Your task to perform on an android device: Go to accessibility settings Image 0: 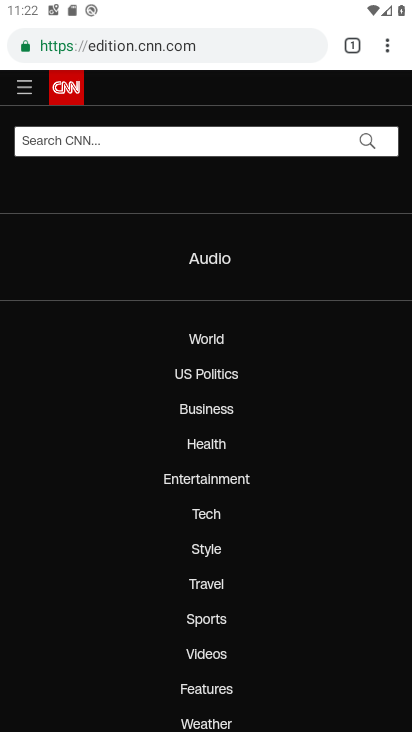
Step 0: press home button
Your task to perform on an android device: Go to accessibility settings Image 1: 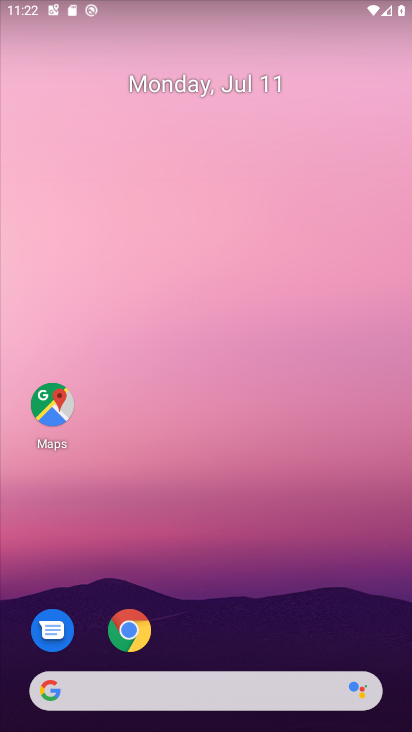
Step 1: drag from (249, 649) to (363, 10)
Your task to perform on an android device: Go to accessibility settings Image 2: 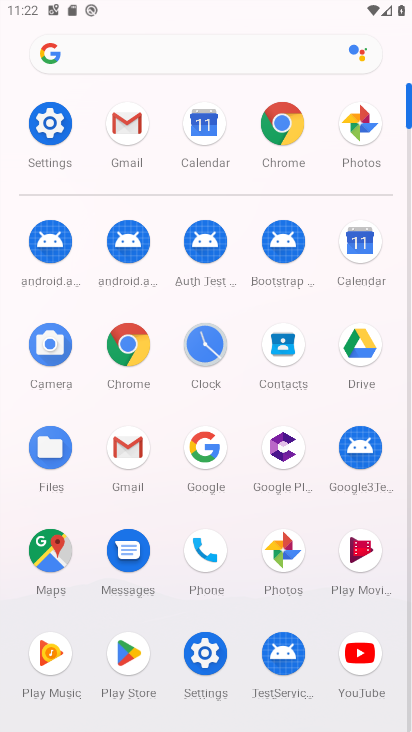
Step 2: click (215, 661)
Your task to perform on an android device: Go to accessibility settings Image 3: 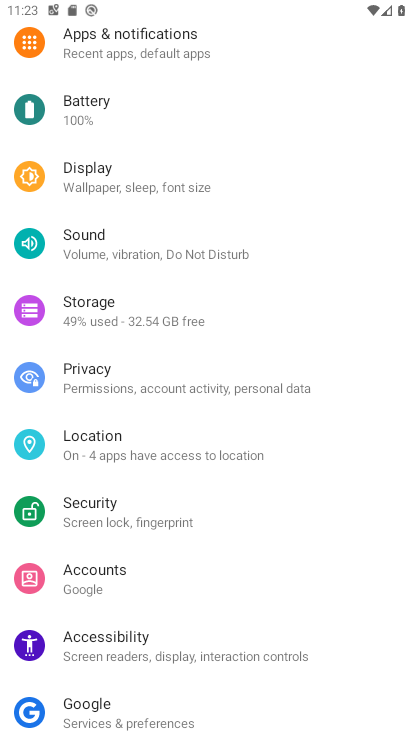
Step 3: click (155, 646)
Your task to perform on an android device: Go to accessibility settings Image 4: 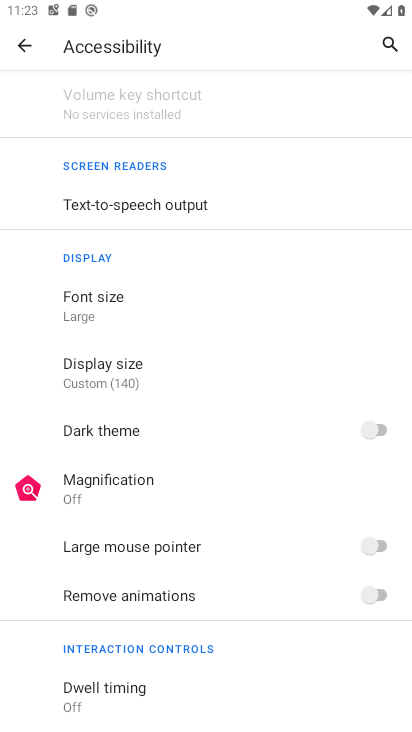
Step 4: task complete